Your task to perform on an android device: Do I have any events tomorrow? Image 0: 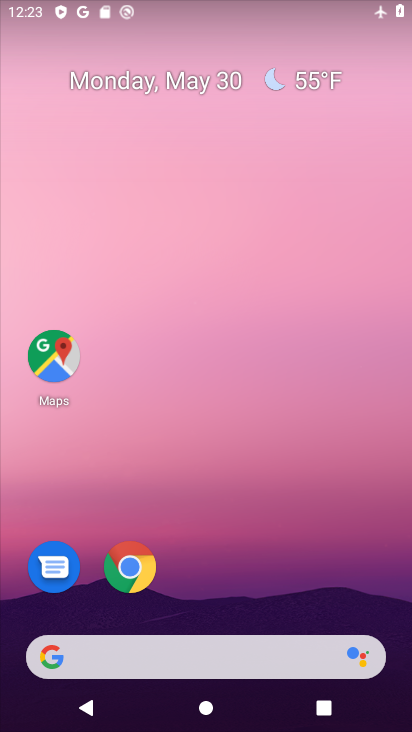
Step 0: drag from (226, 619) to (228, 37)
Your task to perform on an android device: Do I have any events tomorrow? Image 1: 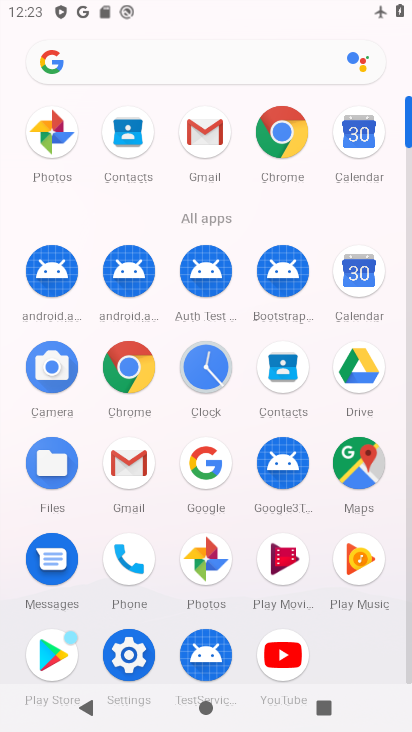
Step 1: click (358, 125)
Your task to perform on an android device: Do I have any events tomorrow? Image 2: 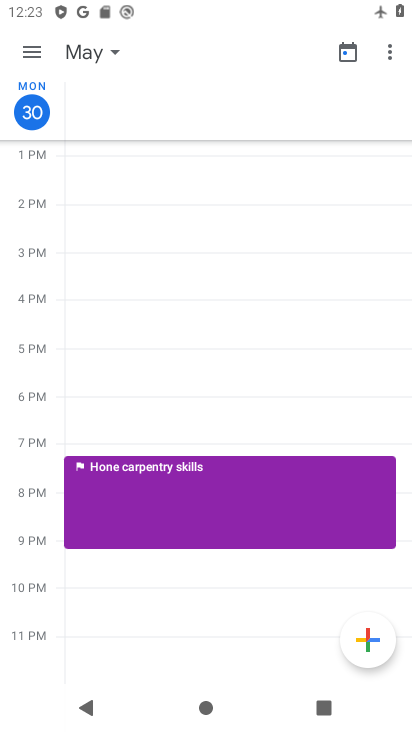
Step 2: click (47, 112)
Your task to perform on an android device: Do I have any events tomorrow? Image 3: 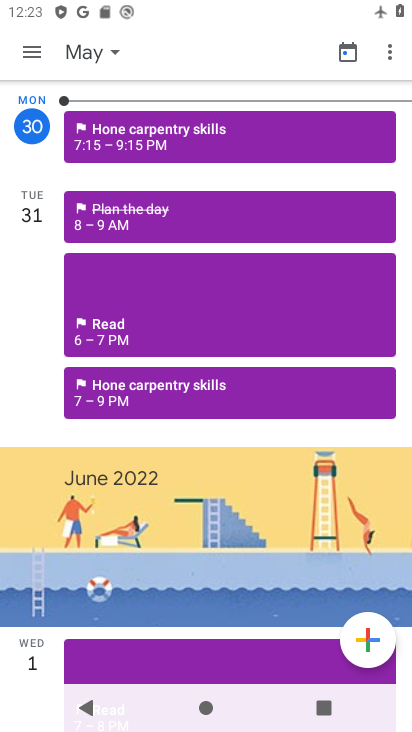
Step 3: click (44, 243)
Your task to perform on an android device: Do I have any events tomorrow? Image 4: 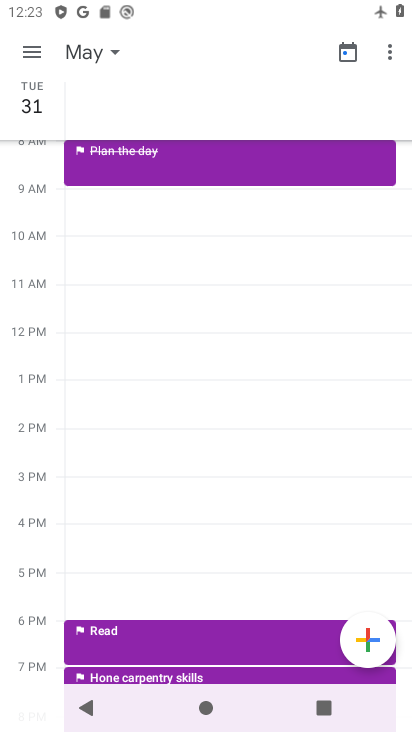
Step 4: task complete